Your task to perform on an android device: see tabs open on other devices in the chrome app Image 0: 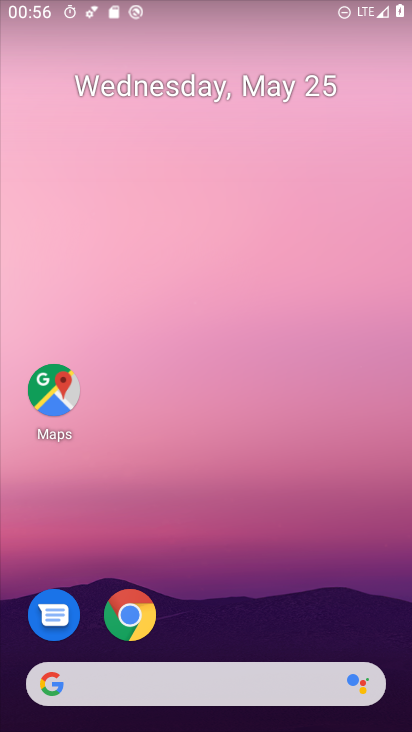
Step 0: drag from (314, 700) to (383, 82)
Your task to perform on an android device: see tabs open on other devices in the chrome app Image 1: 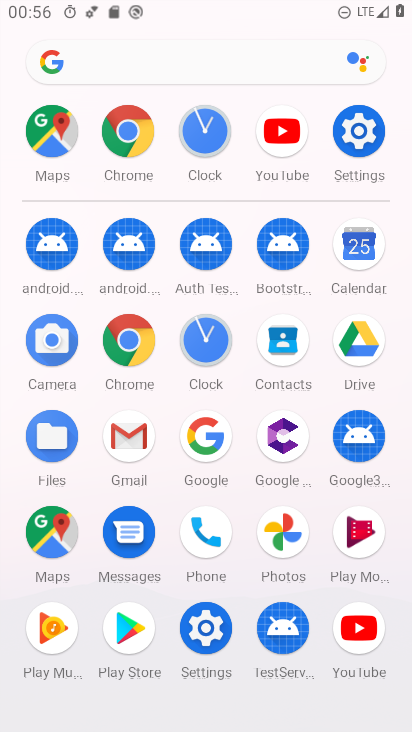
Step 1: click (129, 145)
Your task to perform on an android device: see tabs open on other devices in the chrome app Image 2: 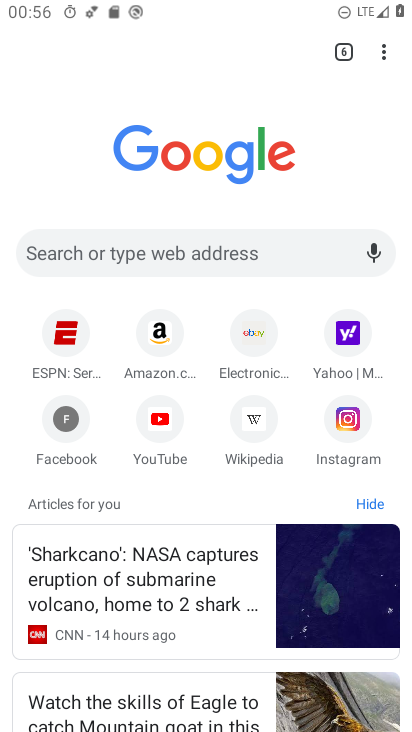
Step 2: click (342, 52)
Your task to perform on an android device: see tabs open on other devices in the chrome app Image 3: 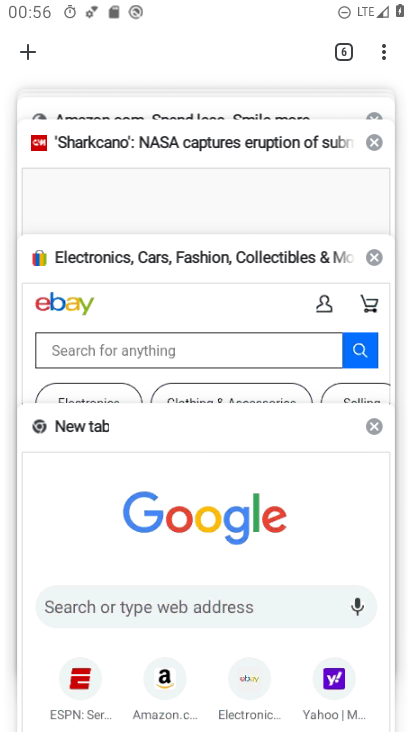
Step 3: click (30, 51)
Your task to perform on an android device: see tabs open on other devices in the chrome app Image 4: 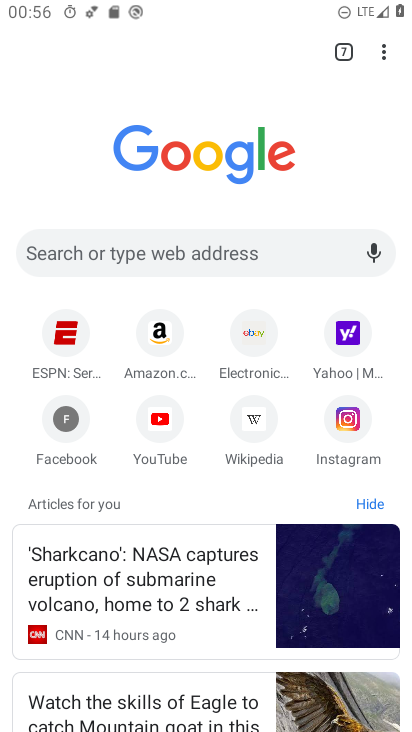
Step 4: task complete